Your task to perform on an android device: turn off notifications in google photos Image 0: 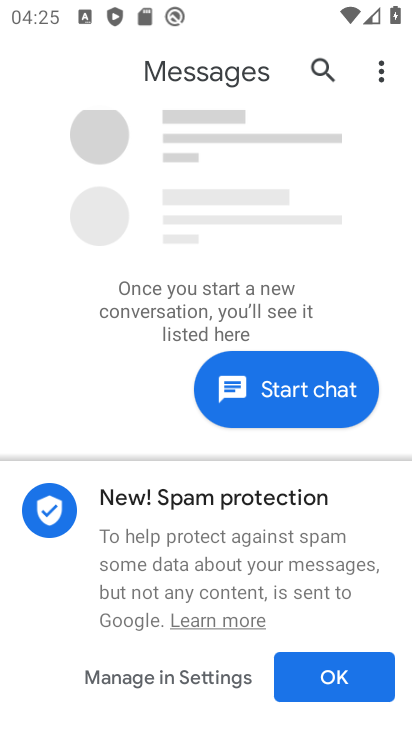
Step 0: press home button
Your task to perform on an android device: turn off notifications in google photos Image 1: 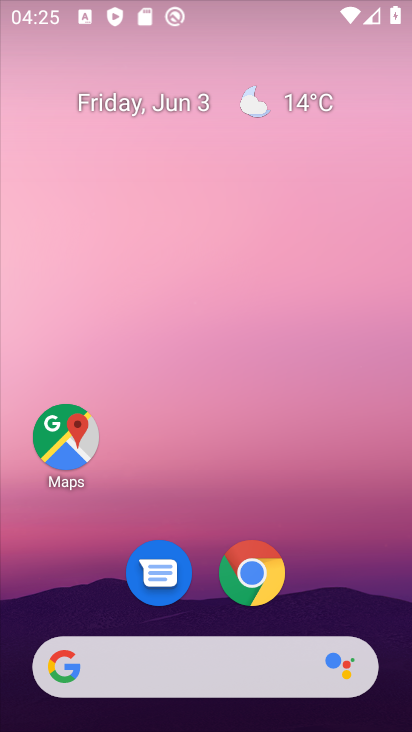
Step 1: drag from (232, 661) to (246, 48)
Your task to perform on an android device: turn off notifications in google photos Image 2: 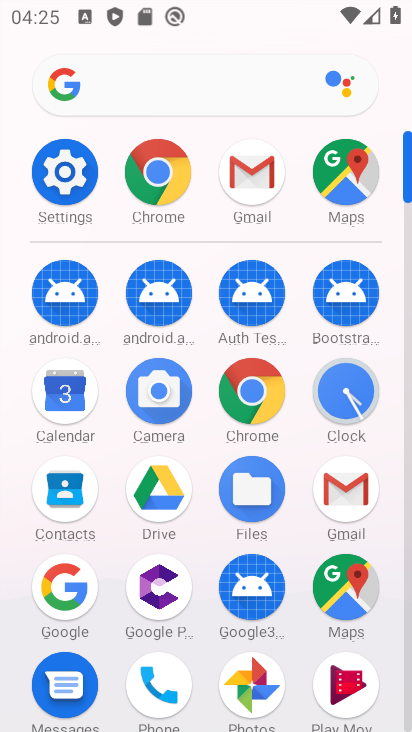
Step 2: click (262, 684)
Your task to perform on an android device: turn off notifications in google photos Image 3: 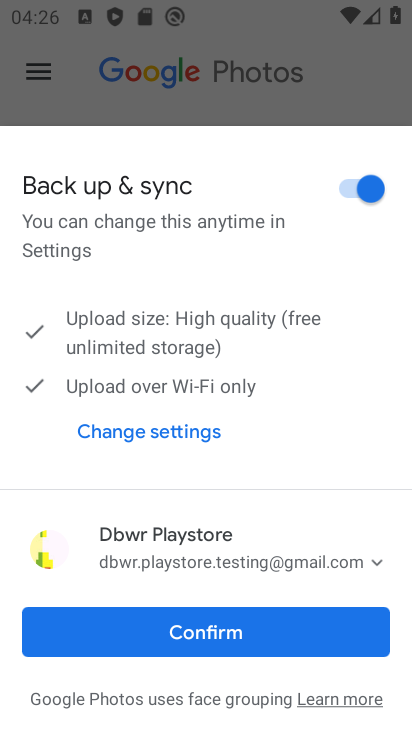
Step 3: click (172, 646)
Your task to perform on an android device: turn off notifications in google photos Image 4: 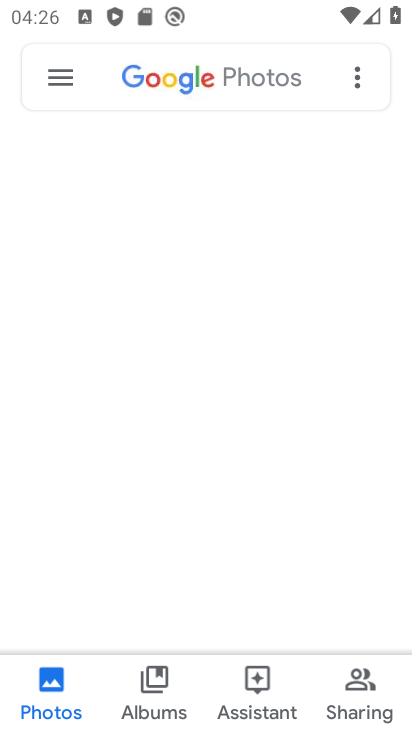
Step 4: click (33, 71)
Your task to perform on an android device: turn off notifications in google photos Image 5: 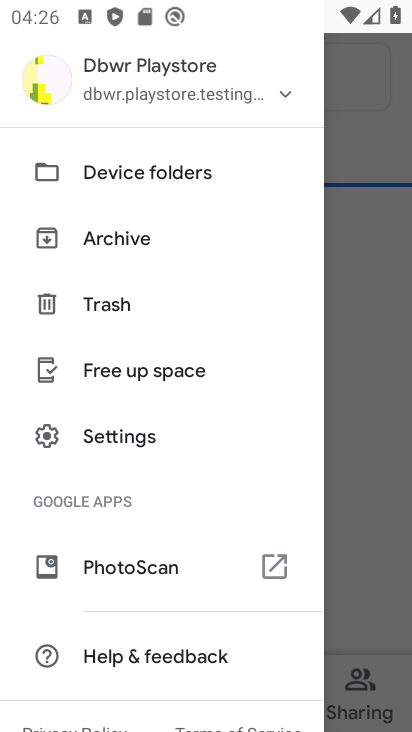
Step 5: drag from (161, 613) to (177, 287)
Your task to perform on an android device: turn off notifications in google photos Image 6: 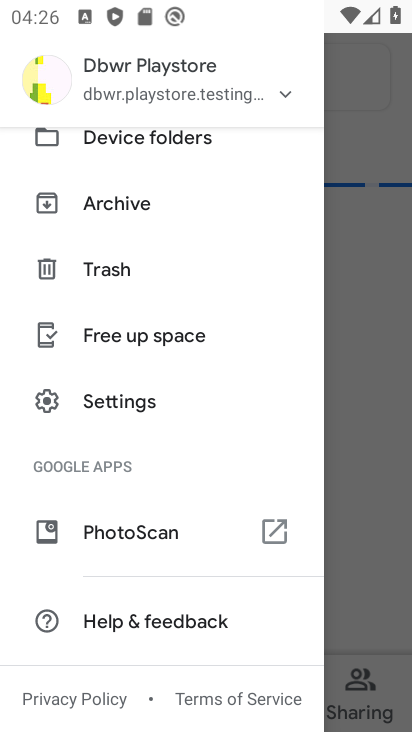
Step 6: click (112, 399)
Your task to perform on an android device: turn off notifications in google photos Image 7: 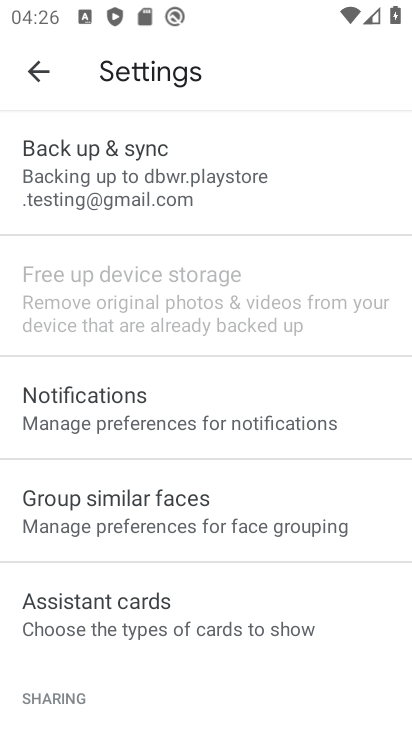
Step 7: click (167, 417)
Your task to perform on an android device: turn off notifications in google photos Image 8: 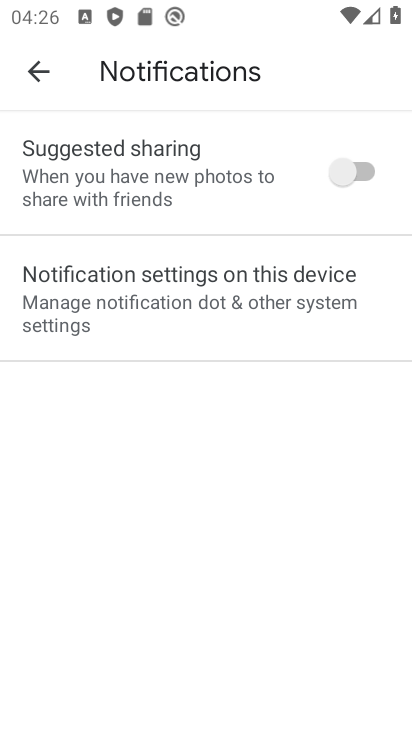
Step 8: click (182, 305)
Your task to perform on an android device: turn off notifications in google photos Image 9: 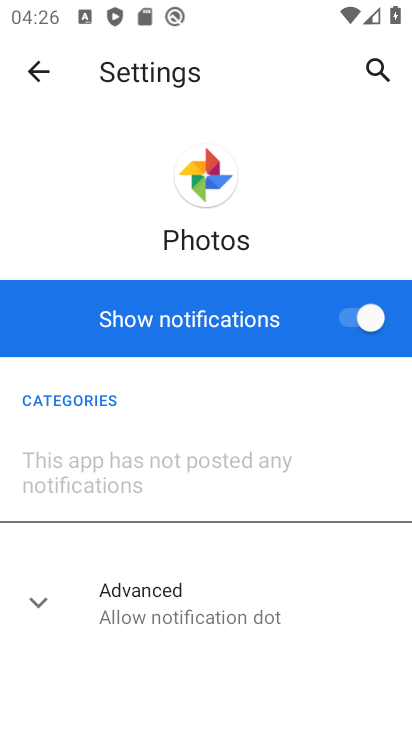
Step 9: click (351, 319)
Your task to perform on an android device: turn off notifications in google photos Image 10: 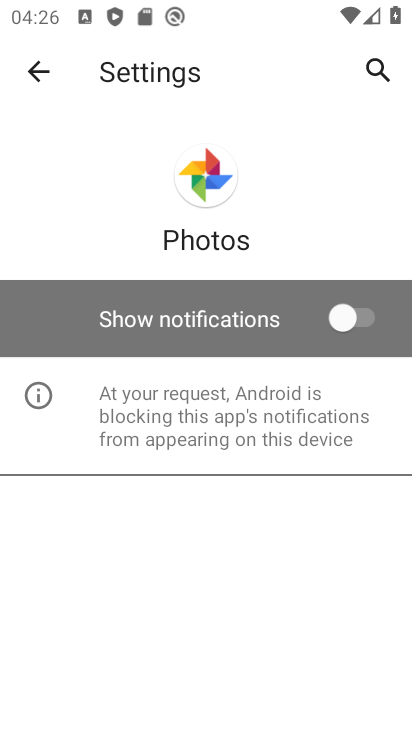
Step 10: task complete